Your task to perform on an android device: clear history in the chrome app Image 0: 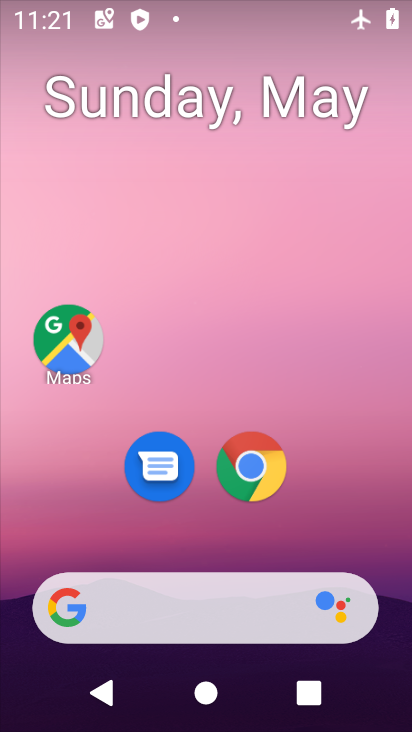
Step 0: drag from (393, 643) to (323, 61)
Your task to perform on an android device: clear history in the chrome app Image 1: 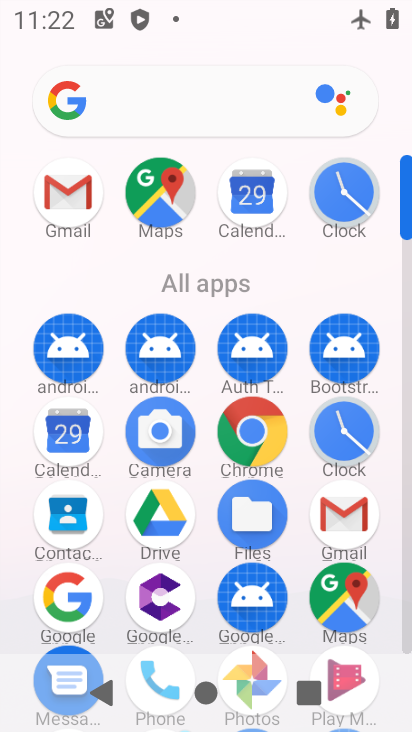
Step 1: click (257, 426)
Your task to perform on an android device: clear history in the chrome app Image 2: 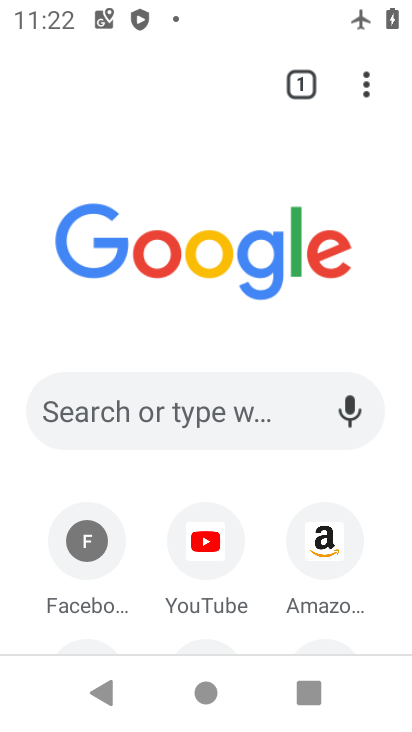
Step 2: click (366, 77)
Your task to perform on an android device: clear history in the chrome app Image 3: 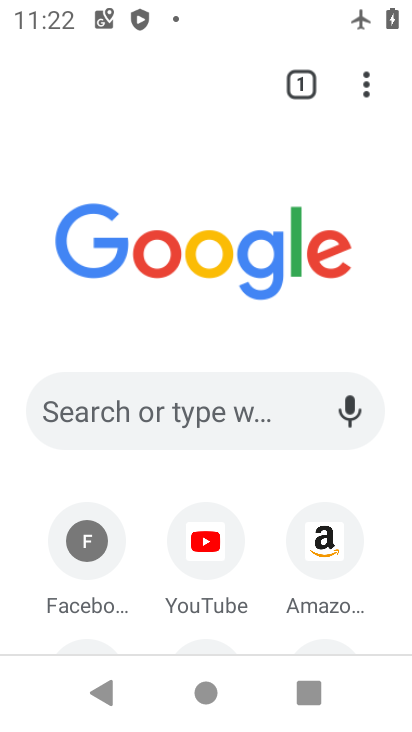
Step 3: click (366, 77)
Your task to perform on an android device: clear history in the chrome app Image 4: 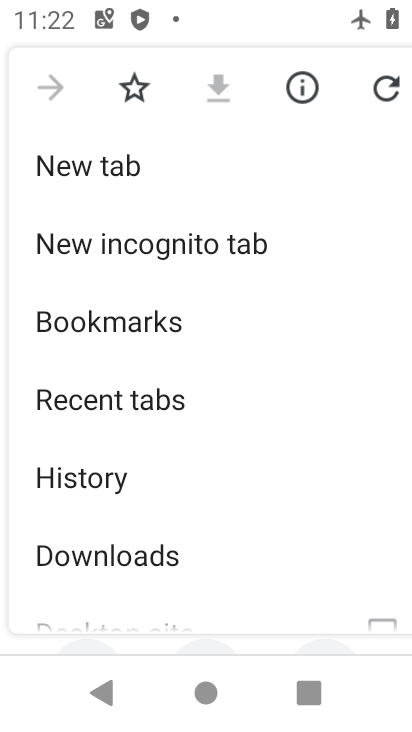
Step 4: click (117, 487)
Your task to perform on an android device: clear history in the chrome app Image 5: 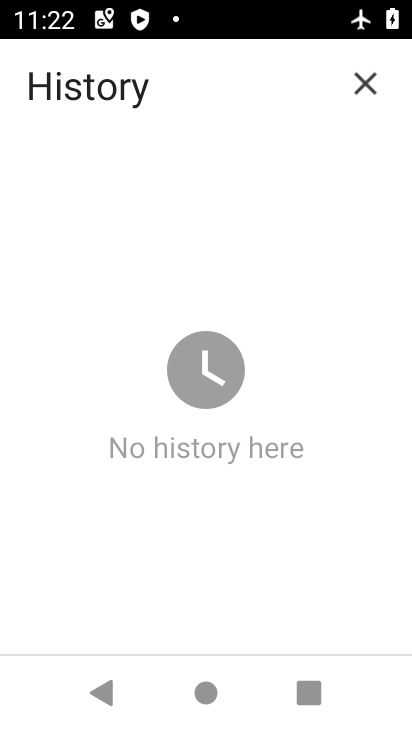
Step 5: task complete